Your task to perform on an android device: Show me popular videos on Youtube Image 0: 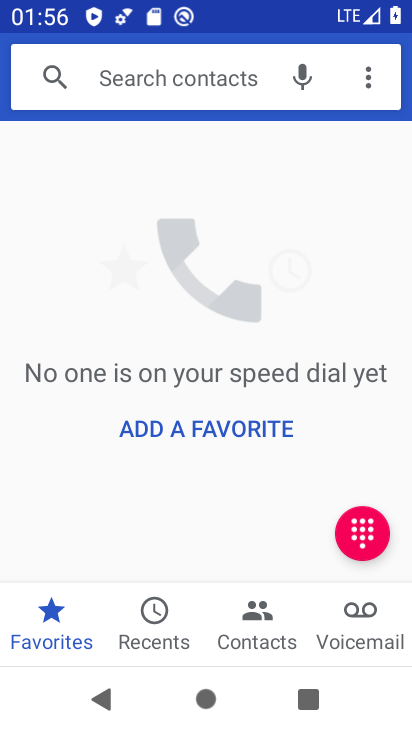
Step 0: press home button
Your task to perform on an android device: Show me popular videos on Youtube Image 1: 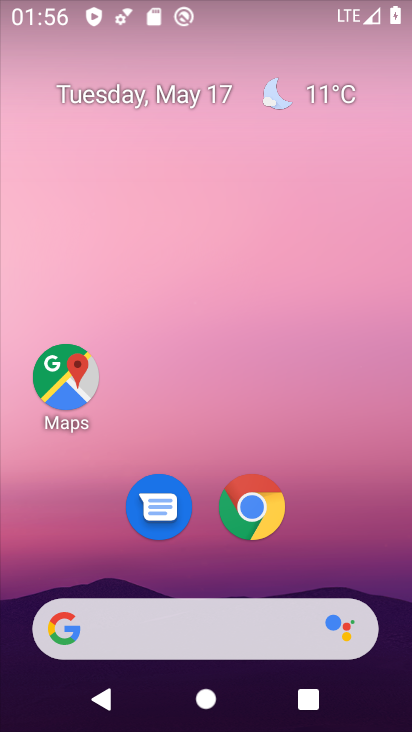
Step 1: drag from (205, 571) to (206, 241)
Your task to perform on an android device: Show me popular videos on Youtube Image 2: 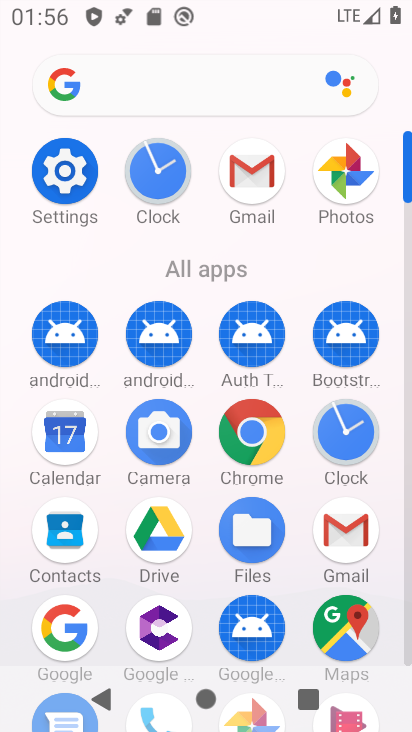
Step 2: drag from (207, 585) to (253, 228)
Your task to perform on an android device: Show me popular videos on Youtube Image 3: 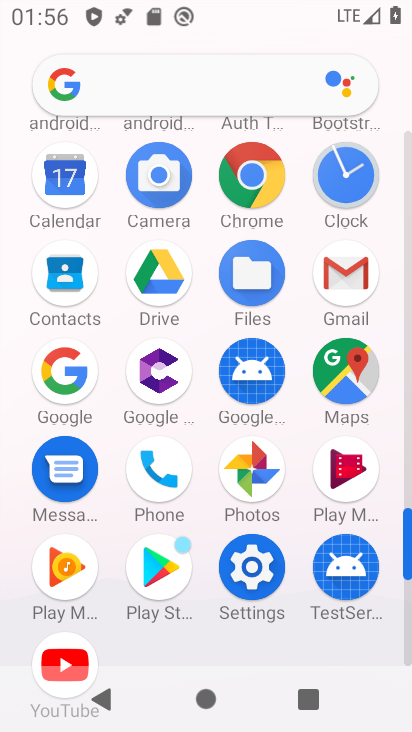
Step 3: click (55, 647)
Your task to perform on an android device: Show me popular videos on Youtube Image 4: 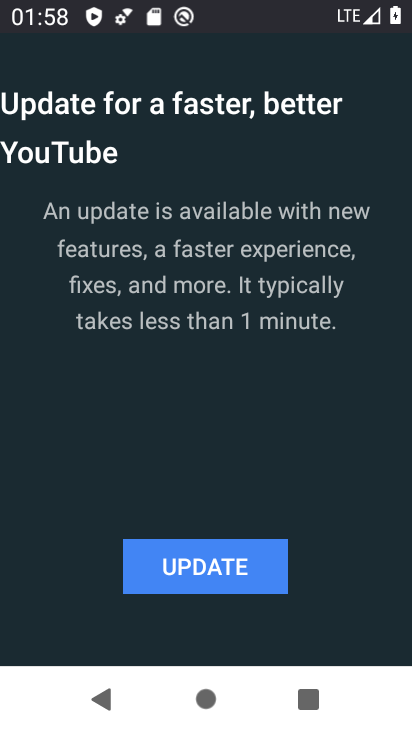
Step 4: click (223, 588)
Your task to perform on an android device: Show me popular videos on Youtube Image 5: 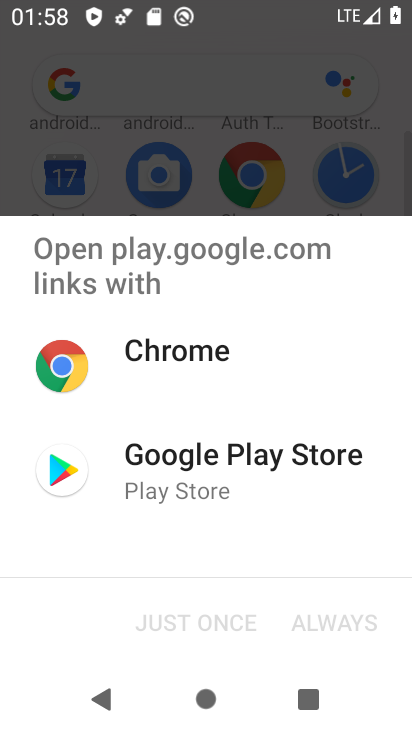
Step 5: click (169, 490)
Your task to perform on an android device: Show me popular videos on Youtube Image 6: 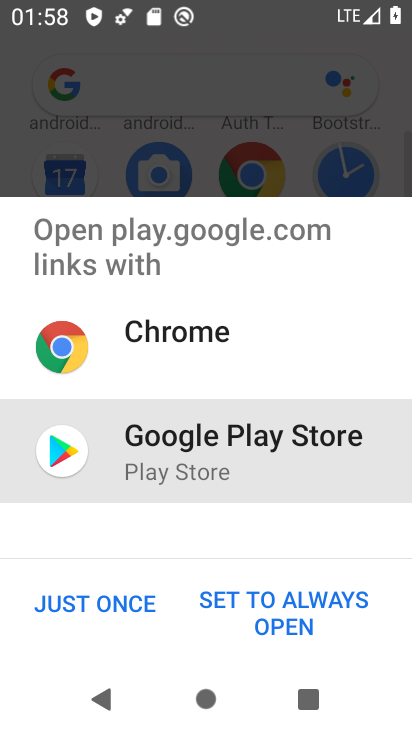
Step 6: click (107, 610)
Your task to perform on an android device: Show me popular videos on Youtube Image 7: 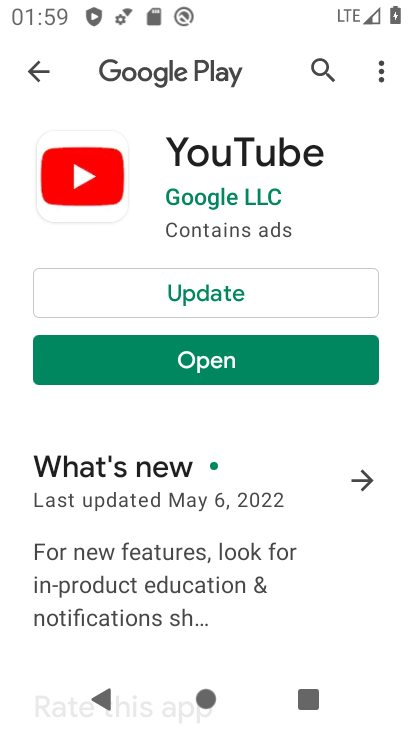
Step 7: click (194, 303)
Your task to perform on an android device: Show me popular videos on Youtube Image 8: 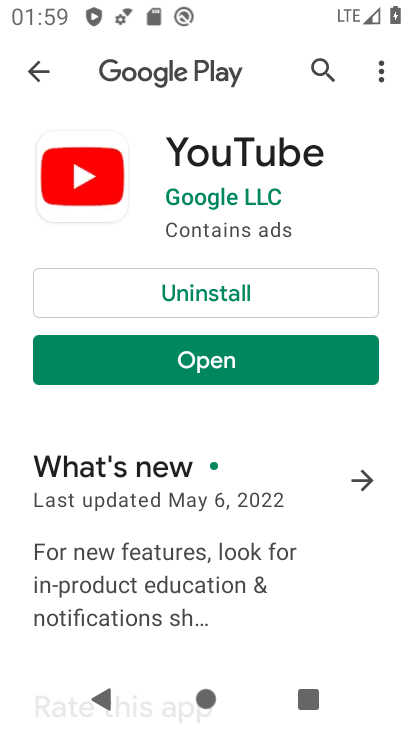
Step 8: click (231, 353)
Your task to perform on an android device: Show me popular videos on Youtube Image 9: 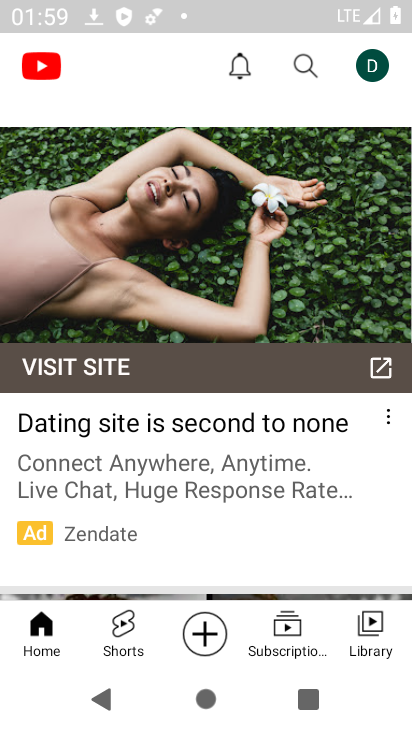
Step 9: click (42, 637)
Your task to perform on an android device: Show me popular videos on Youtube Image 10: 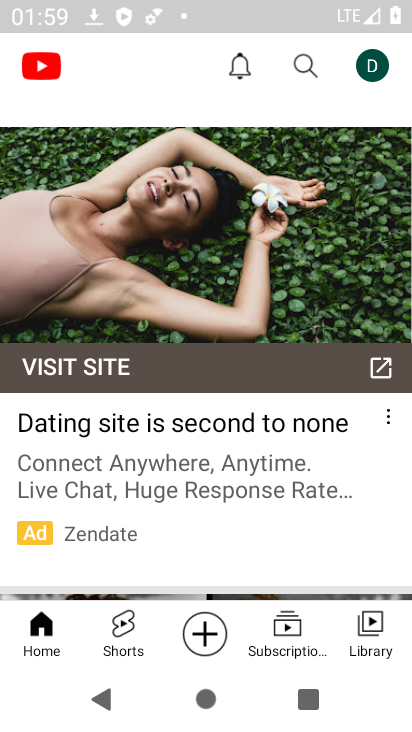
Step 10: drag from (113, 275) to (195, 584)
Your task to perform on an android device: Show me popular videos on Youtube Image 11: 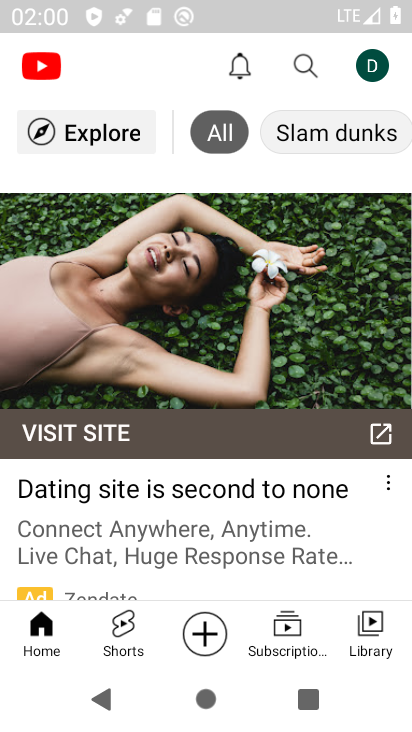
Step 11: click (122, 136)
Your task to perform on an android device: Show me popular videos on Youtube Image 12: 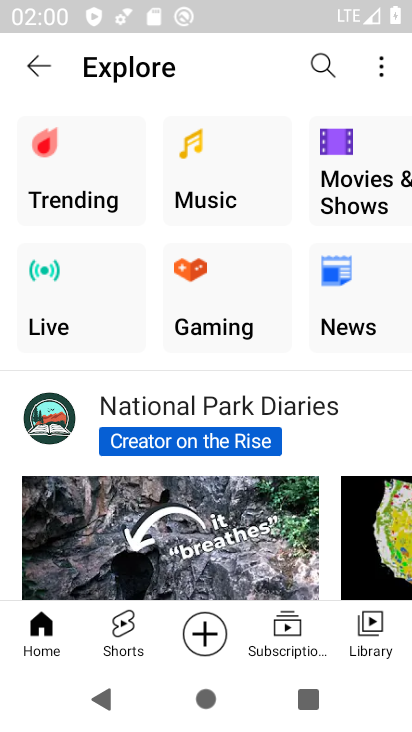
Step 12: click (108, 142)
Your task to perform on an android device: Show me popular videos on Youtube Image 13: 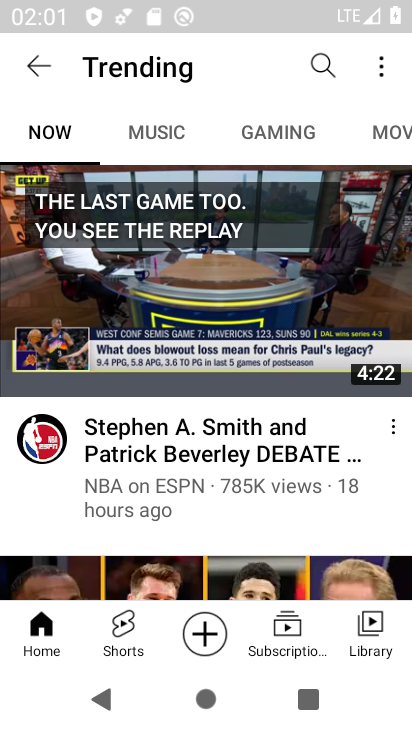
Step 13: task complete